Your task to perform on an android device: Go to accessibility settings Image 0: 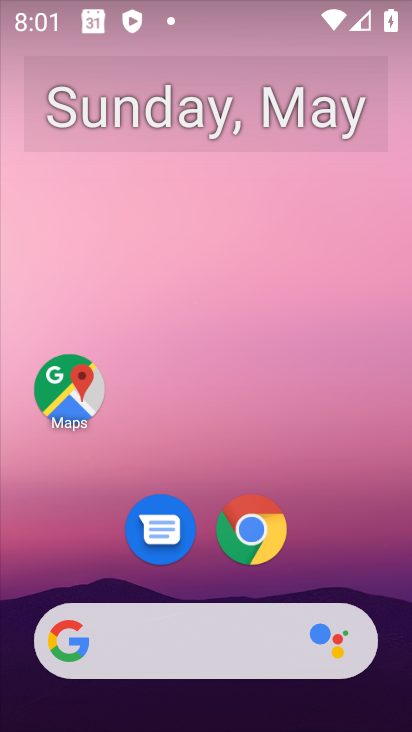
Step 0: drag from (193, 536) to (270, 30)
Your task to perform on an android device: Go to accessibility settings Image 1: 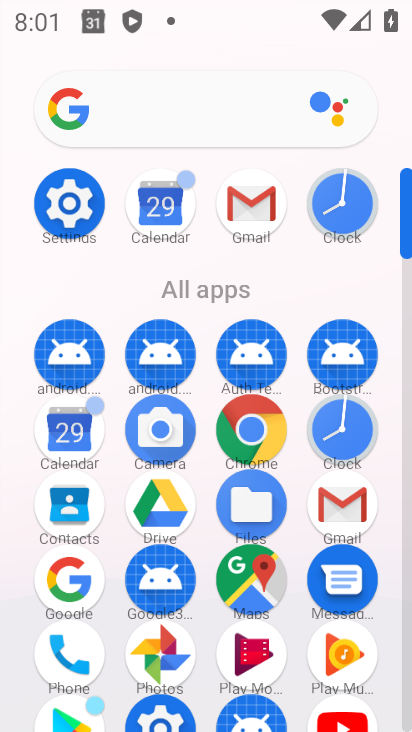
Step 1: click (70, 191)
Your task to perform on an android device: Go to accessibility settings Image 2: 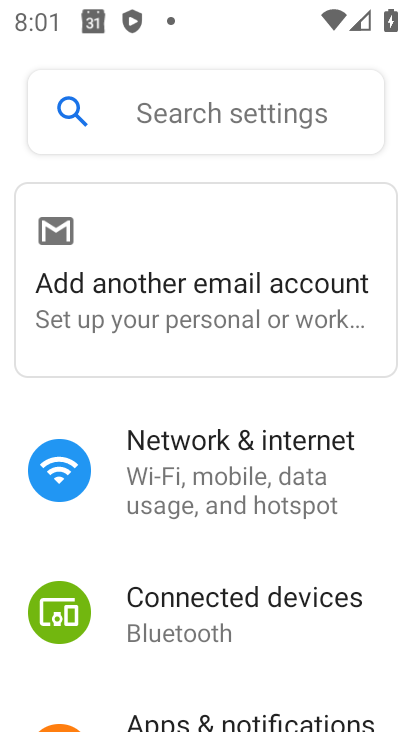
Step 2: drag from (219, 675) to (313, 129)
Your task to perform on an android device: Go to accessibility settings Image 3: 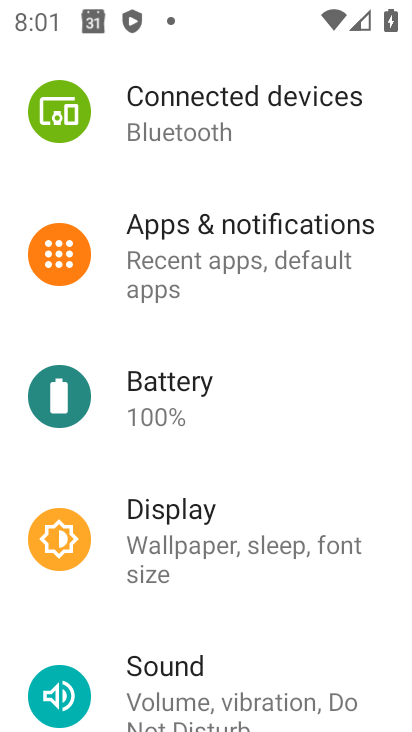
Step 3: drag from (212, 618) to (332, 52)
Your task to perform on an android device: Go to accessibility settings Image 4: 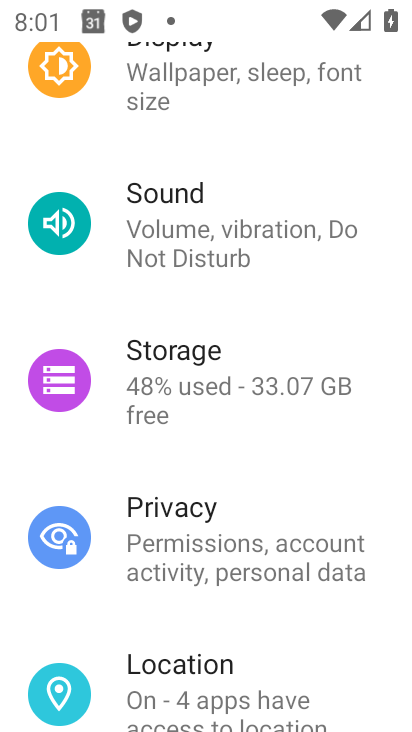
Step 4: drag from (212, 613) to (346, 27)
Your task to perform on an android device: Go to accessibility settings Image 5: 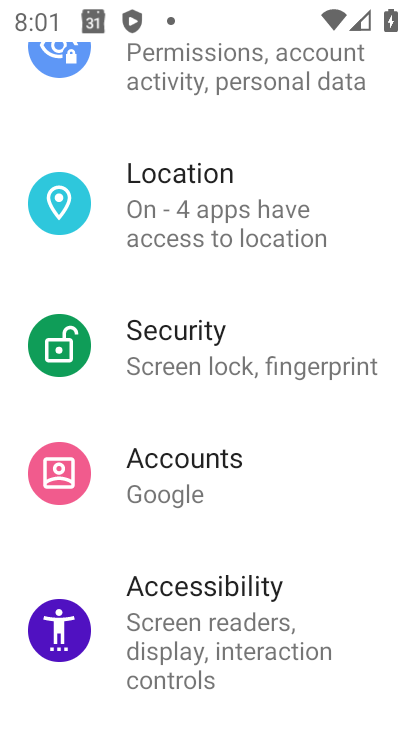
Step 5: click (222, 606)
Your task to perform on an android device: Go to accessibility settings Image 6: 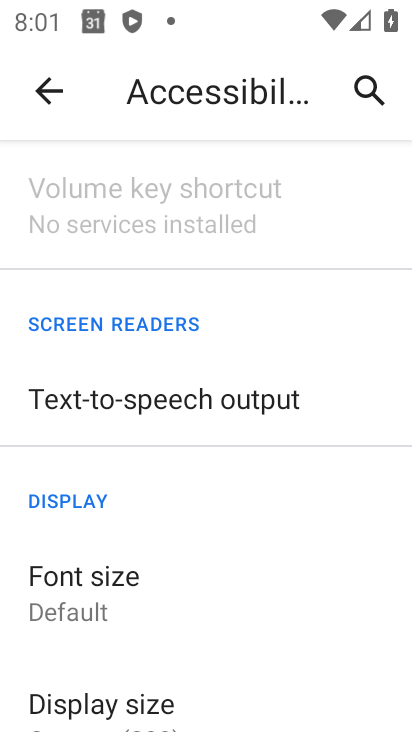
Step 6: task complete